Your task to perform on an android device: toggle javascript in the chrome app Image 0: 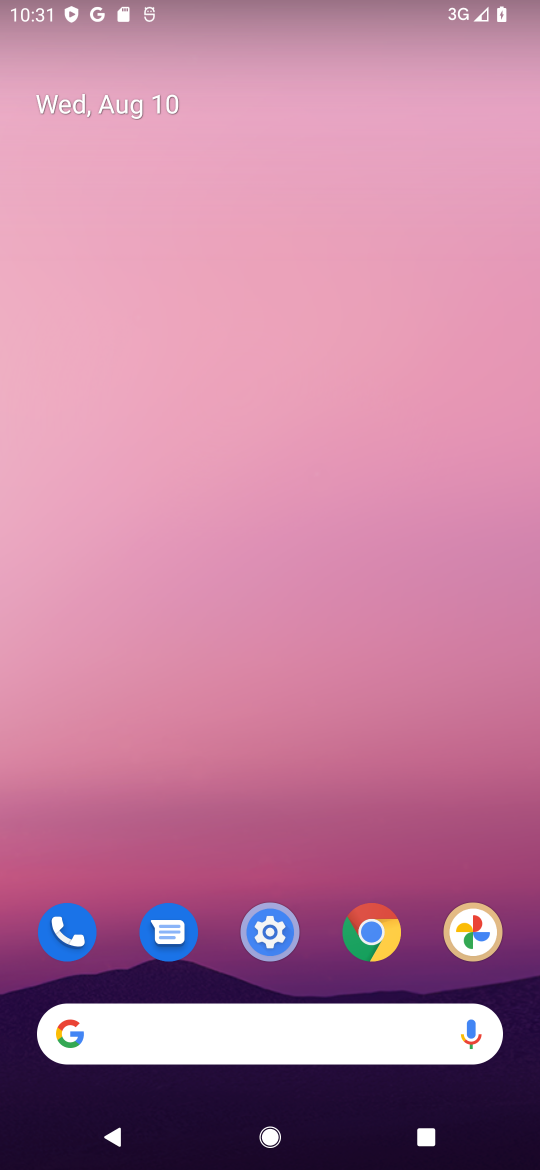
Step 0: click (370, 939)
Your task to perform on an android device: toggle javascript in the chrome app Image 1: 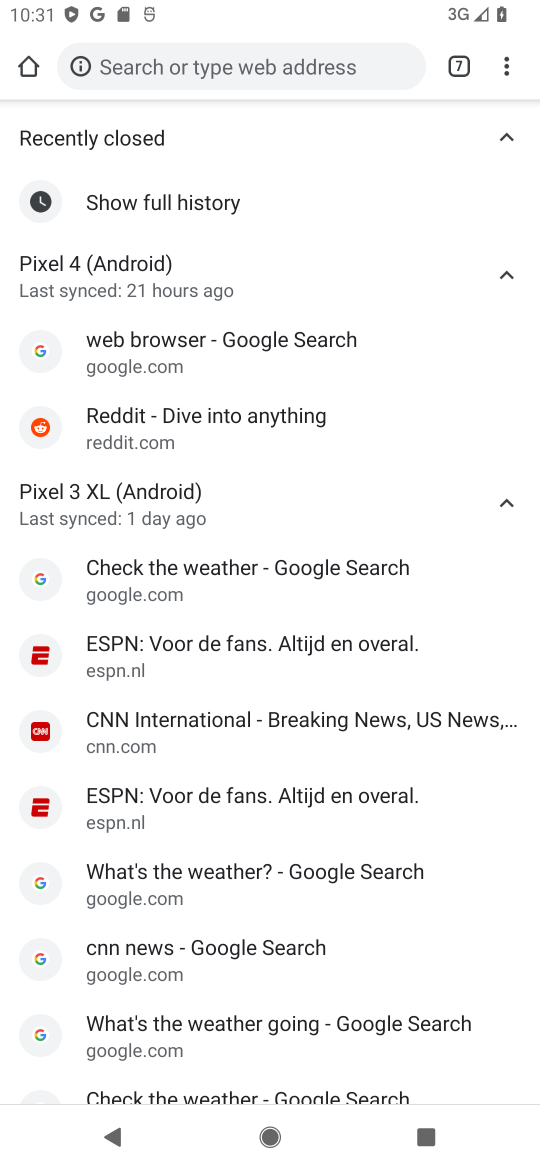
Step 1: click (492, 66)
Your task to perform on an android device: toggle javascript in the chrome app Image 2: 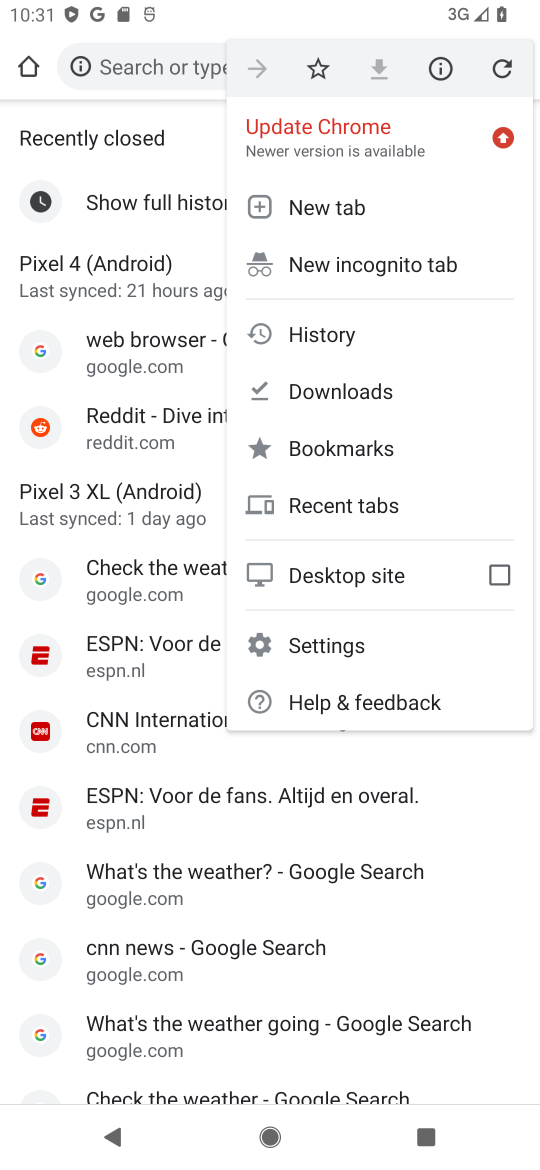
Step 2: click (323, 640)
Your task to perform on an android device: toggle javascript in the chrome app Image 3: 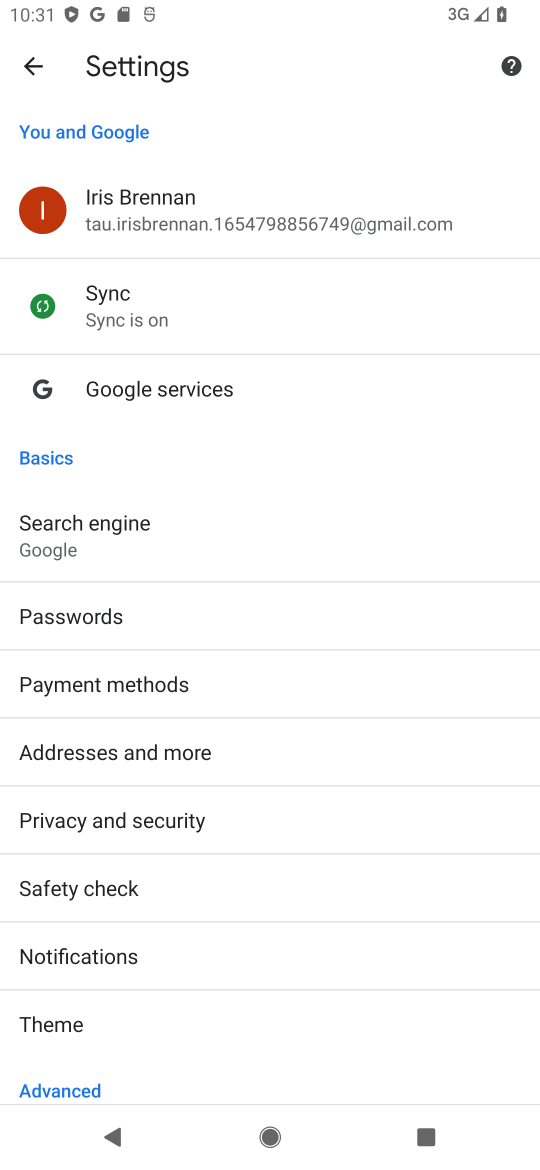
Step 3: drag from (277, 917) to (275, 517)
Your task to perform on an android device: toggle javascript in the chrome app Image 4: 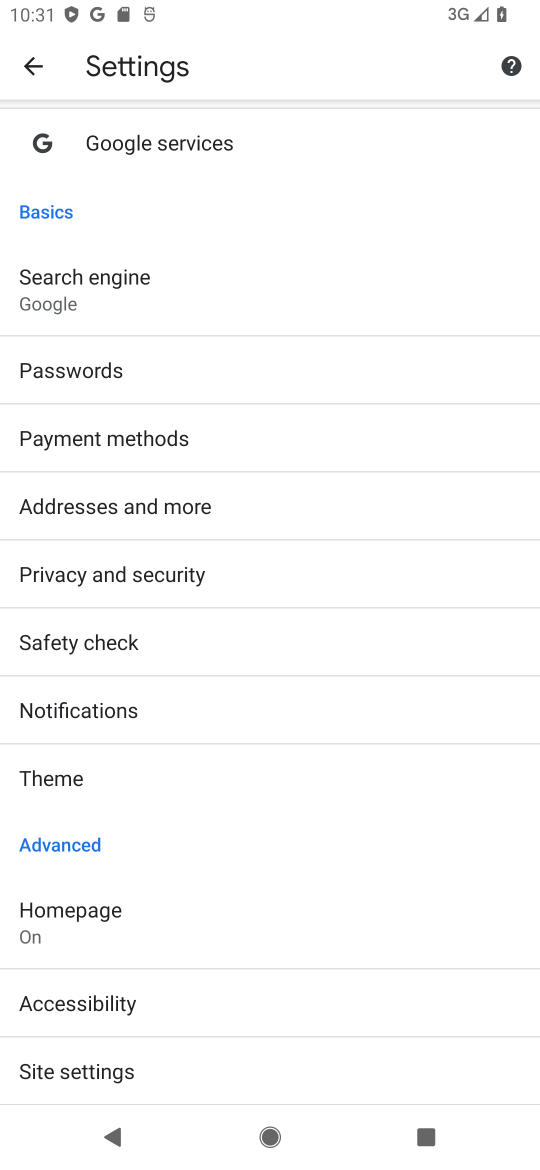
Step 4: drag from (234, 933) to (262, 557)
Your task to perform on an android device: toggle javascript in the chrome app Image 5: 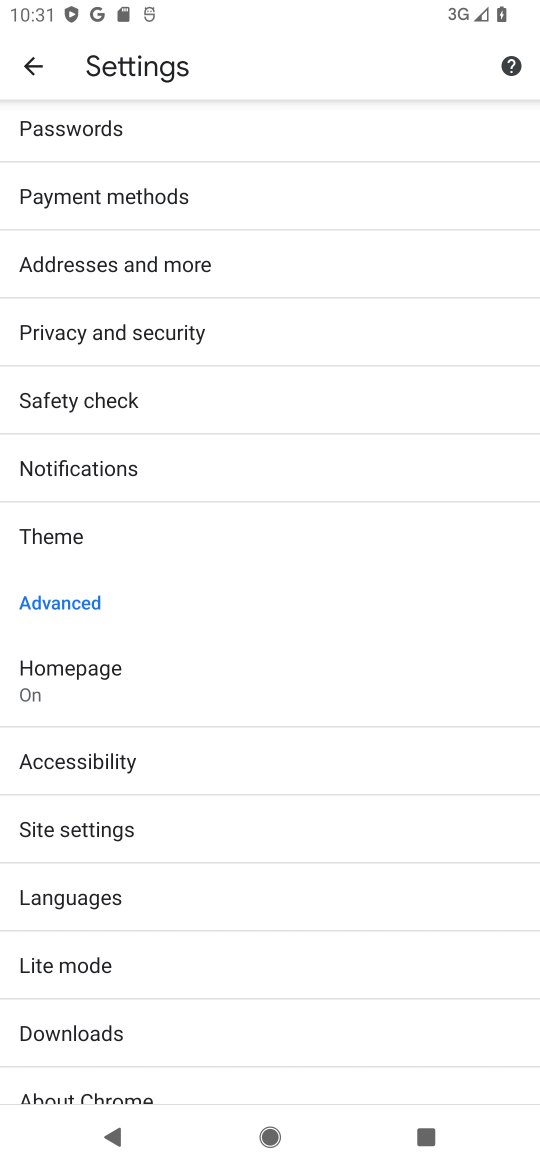
Step 5: click (96, 832)
Your task to perform on an android device: toggle javascript in the chrome app Image 6: 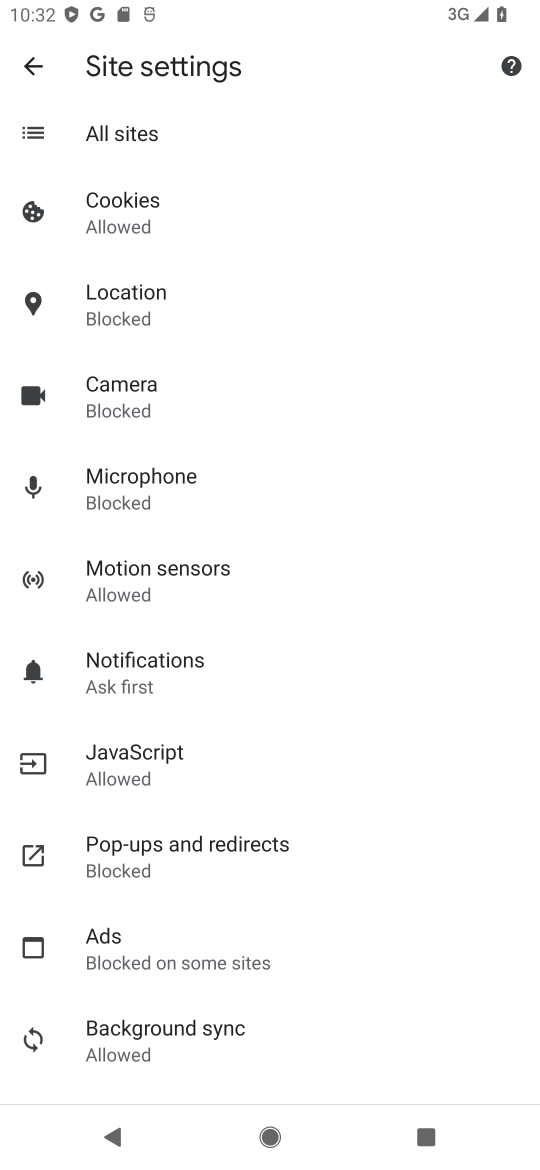
Step 6: click (130, 757)
Your task to perform on an android device: toggle javascript in the chrome app Image 7: 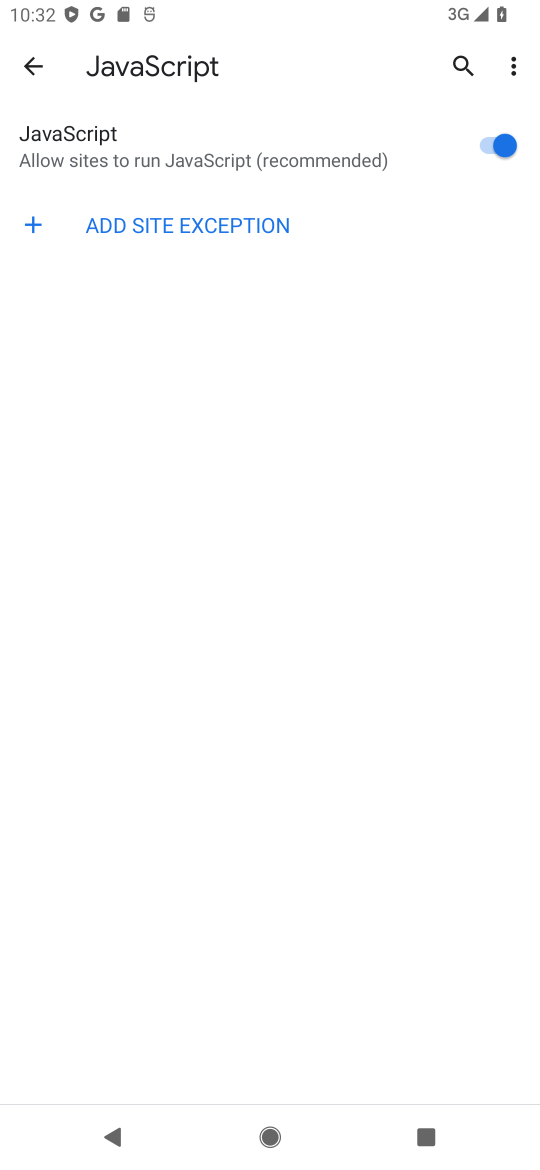
Step 7: click (503, 150)
Your task to perform on an android device: toggle javascript in the chrome app Image 8: 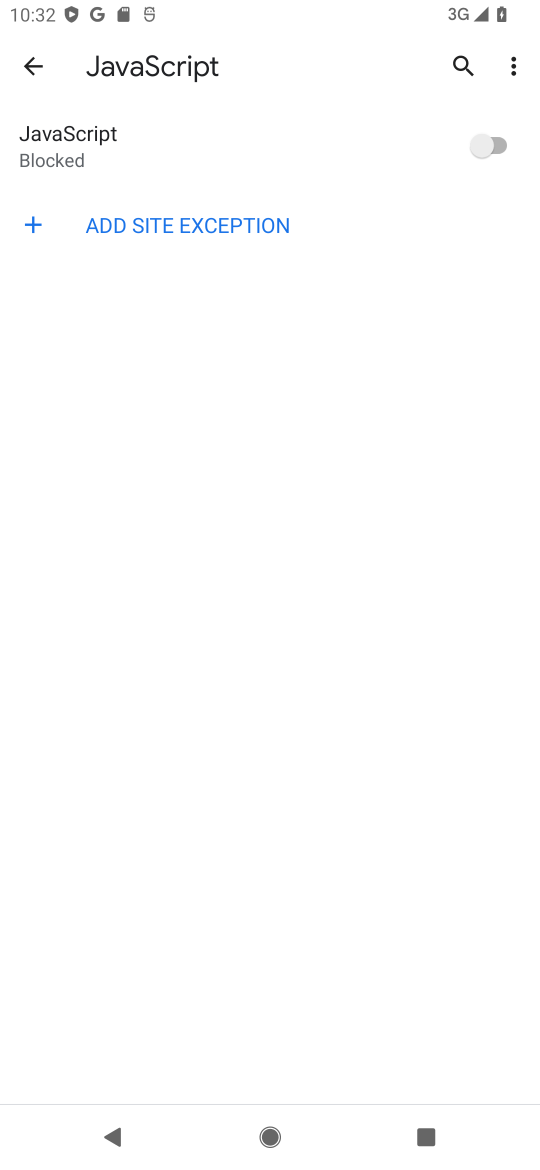
Step 8: task complete